Your task to perform on an android device: Open Google Chrome and click the shortcut for Amazon.com Image 0: 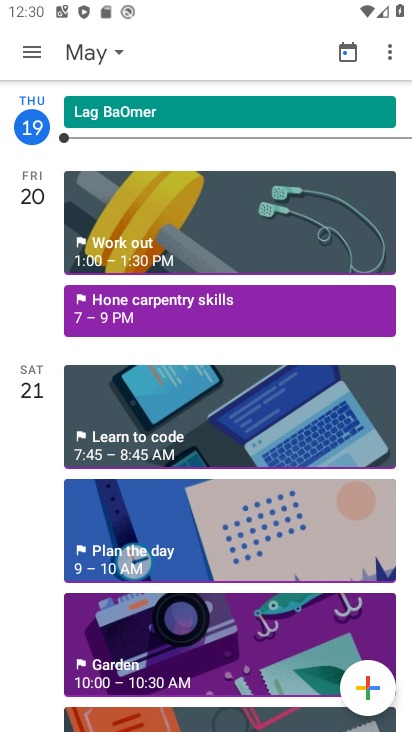
Step 0: press home button
Your task to perform on an android device: Open Google Chrome and click the shortcut for Amazon.com Image 1: 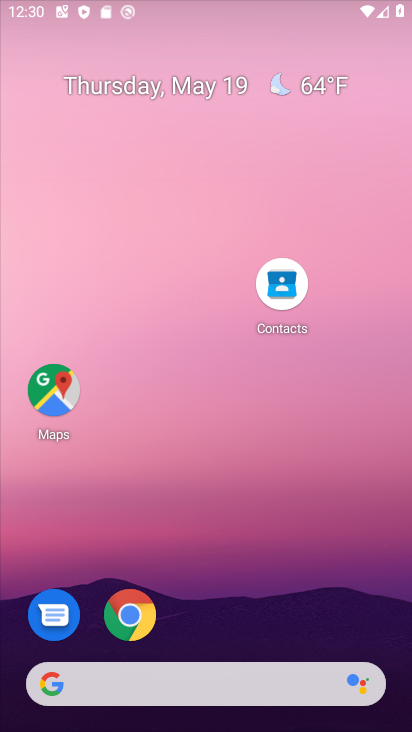
Step 1: drag from (254, 559) to (268, 77)
Your task to perform on an android device: Open Google Chrome and click the shortcut for Amazon.com Image 2: 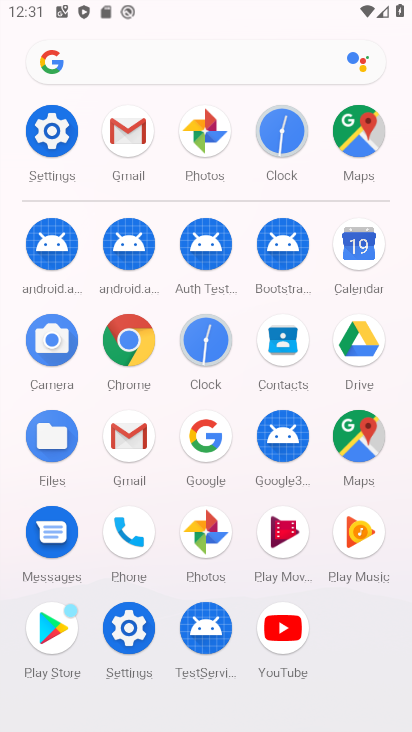
Step 2: click (134, 342)
Your task to perform on an android device: Open Google Chrome and click the shortcut for Amazon.com Image 3: 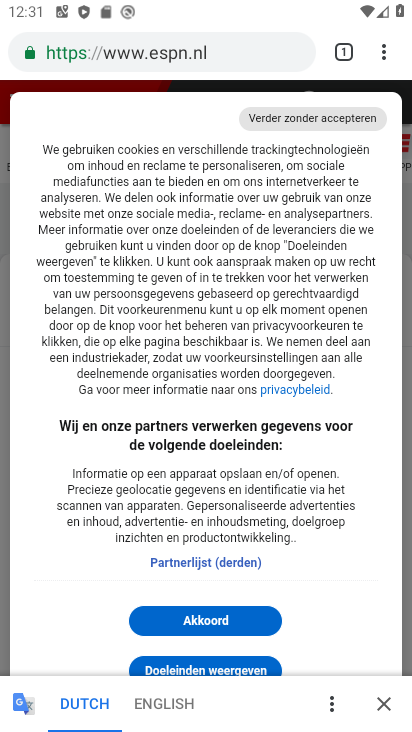
Step 3: click (387, 55)
Your task to perform on an android device: Open Google Chrome and click the shortcut for Amazon.com Image 4: 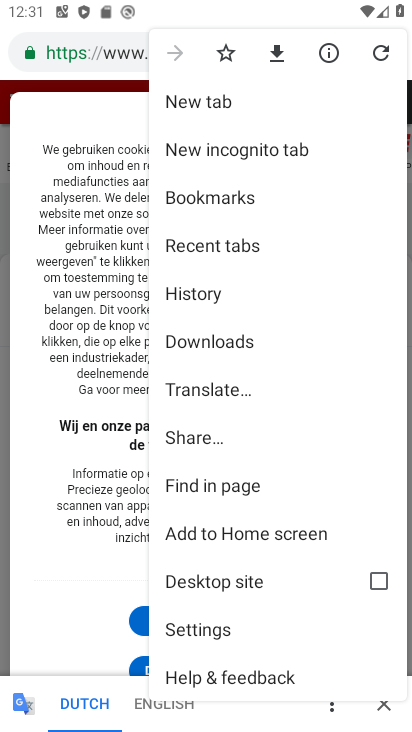
Step 4: click (109, 73)
Your task to perform on an android device: Open Google Chrome and click the shortcut for Amazon.com Image 5: 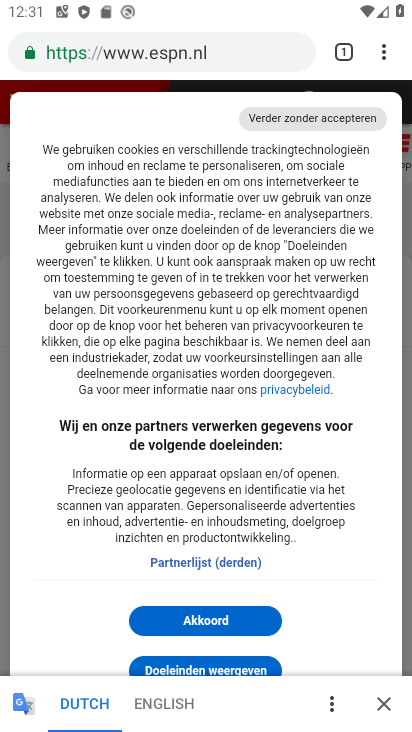
Step 5: drag from (142, 51) to (170, 255)
Your task to perform on an android device: Open Google Chrome and click the shortcut for Amazon.com Image 6: 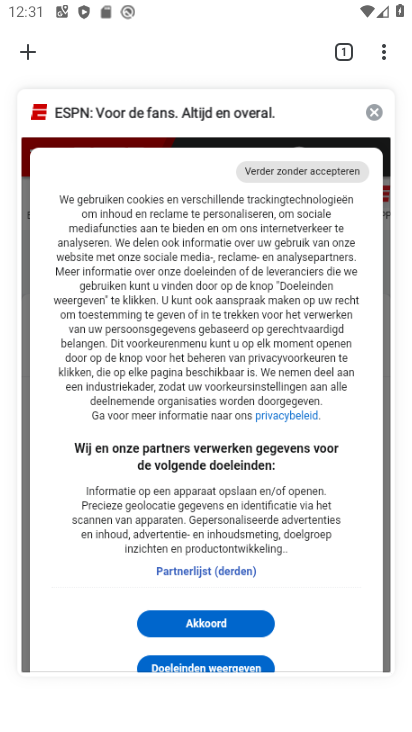
Step 6: click (33, 53)
Your task to perform on an android device: Open Google Chrome and click the shortcut for Amazon.com Image 7: 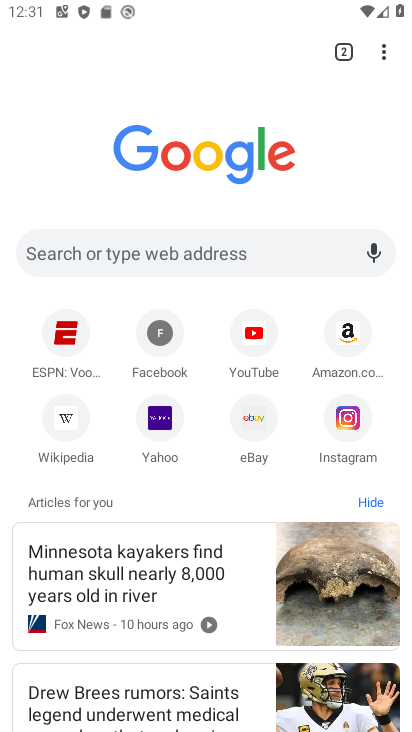
Step 7: click (346, 350)
Your task to perform on an android device: Open Google Chrome and click the shortcut for Amazon.com Image 8: 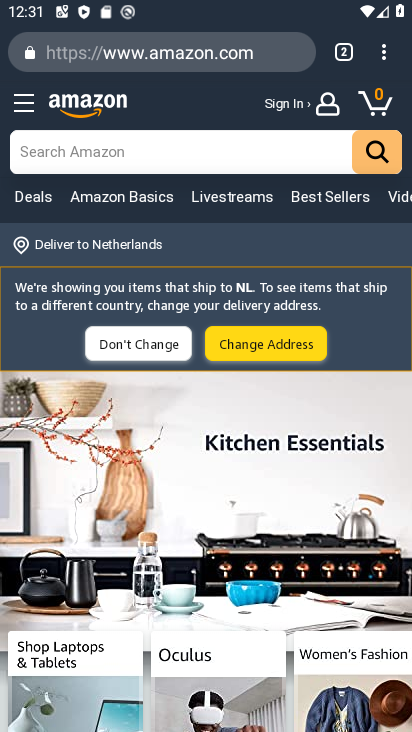
Step 8: task complete